Your task to perform on an android device: check data usage Image 0: 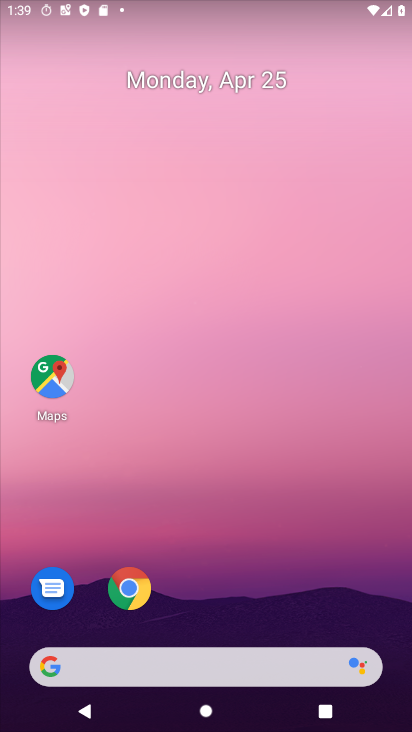
Step 0: drag from (236, 593) to (262, 202)
Your task to perform on an android device: check data usage Image 1: 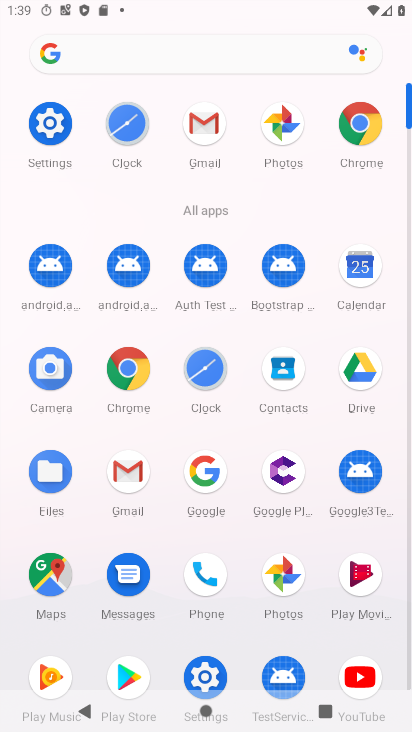
Step 1: click (61, 142)
Your task to perform on an android device: check data usage Image 2: 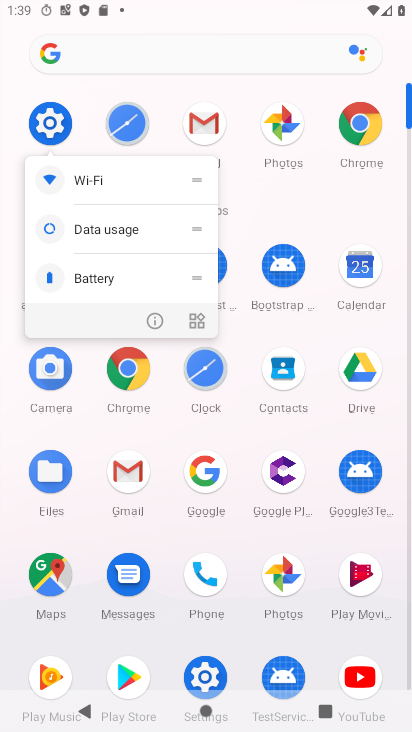
Step 2: click (155, 326)
Your task to perform on an android device: check data usage Image 3: 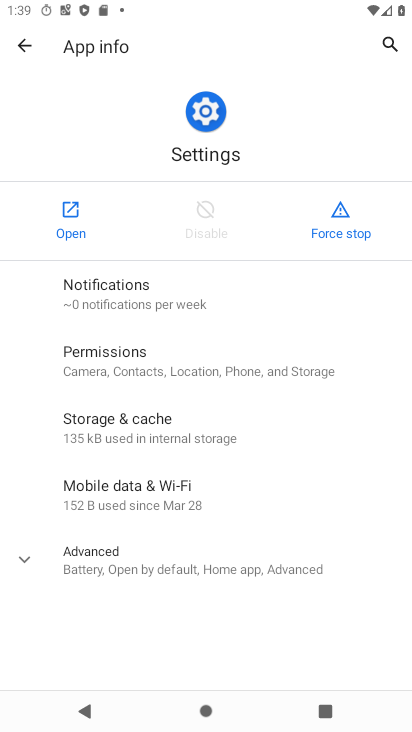
Step 3: click (78, 231)
Your task to perform on an android device: check data usage Image 4: 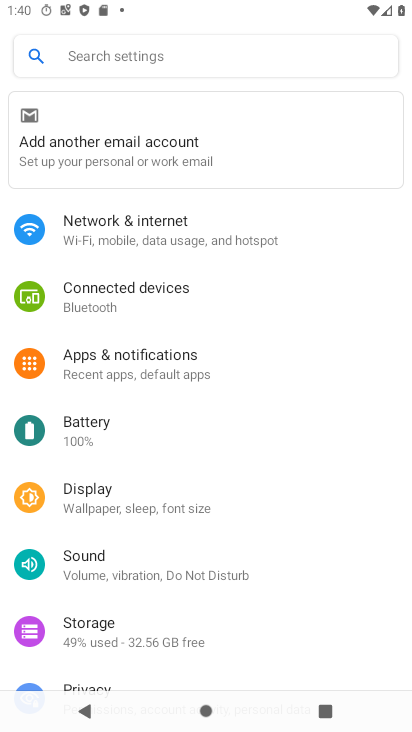
Step 4: click (168, 224)
Your task to perform on an android device: check data usage Image 5: 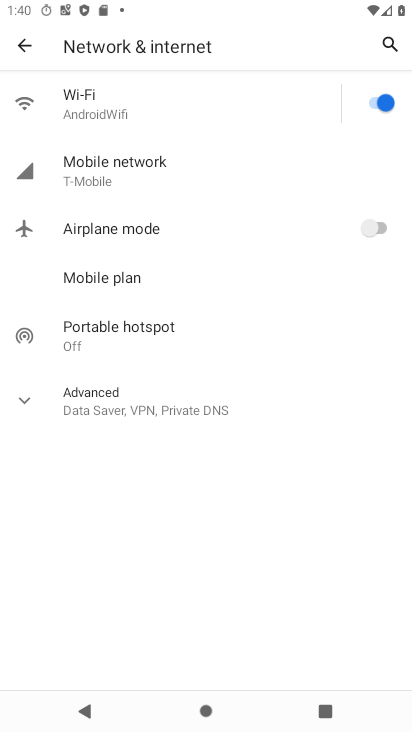
Step 5: click (166, 178)
Your task to perform on an android device: check data usage Image 6: 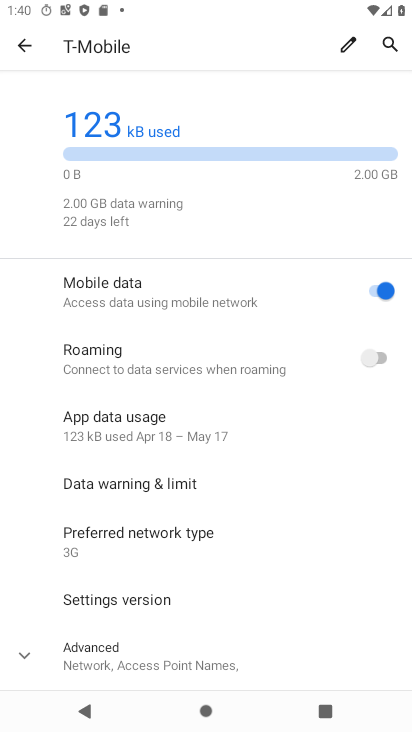
Step 6: click (253, 206)
Your task to perform on an android device: check data usage Image 7: 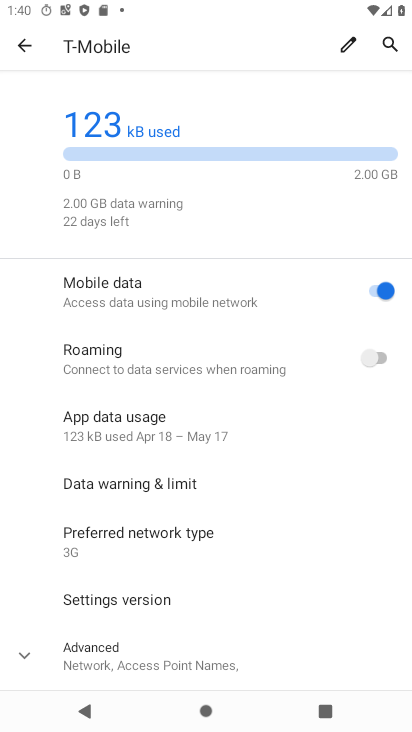
Step 7: task complete